Your task to perform on an android device: change the clock display to analog Image 0: 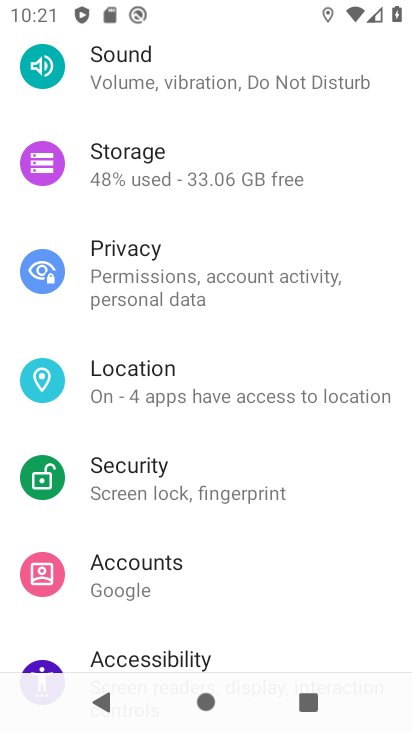
Step 0: press home button
Your task to perform on an android device: change the clock display to analog Image 1: 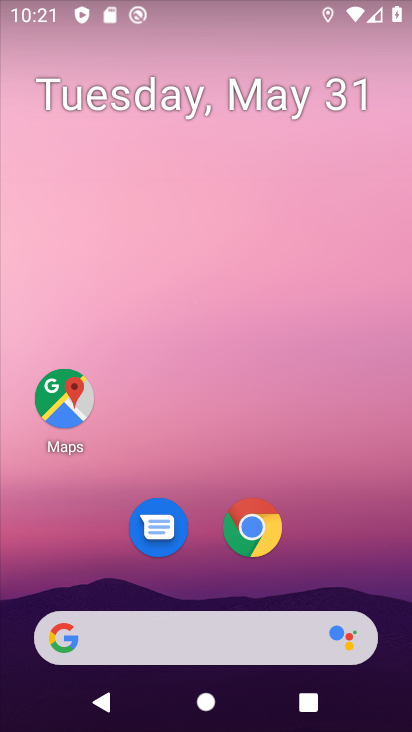
Step 1: drag from (397, 588) to (283, 49)
Your task to perform on an android device: change the clock display to analog Image 2: 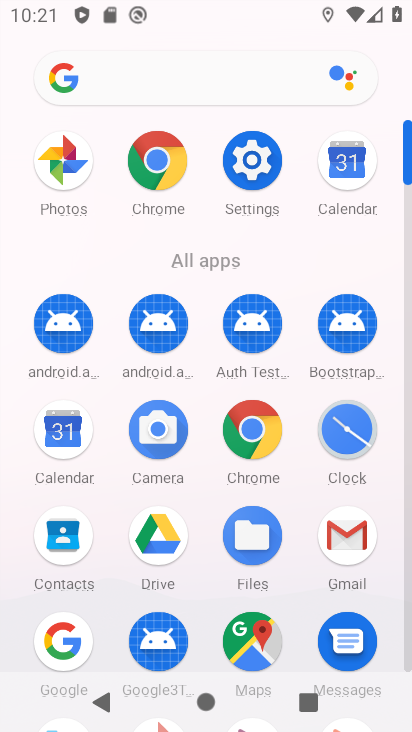
Step 2: click (353, 424)
Your task to perform on an android device: change the clock display to analog Image 3: 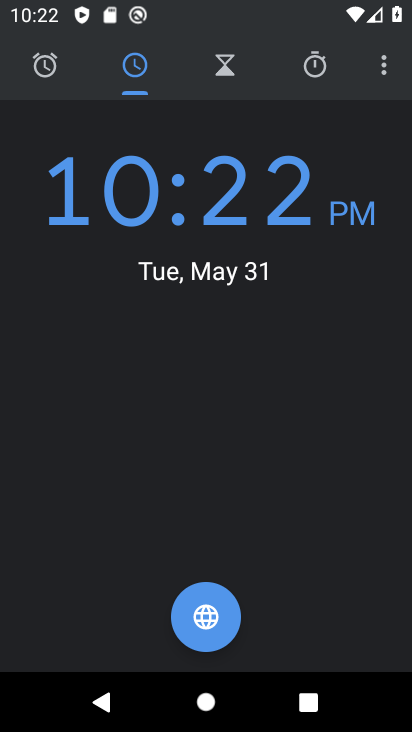
Step 3: click (384, 66)
Your task to perform on an android device: change the clock display to analog Image 4: 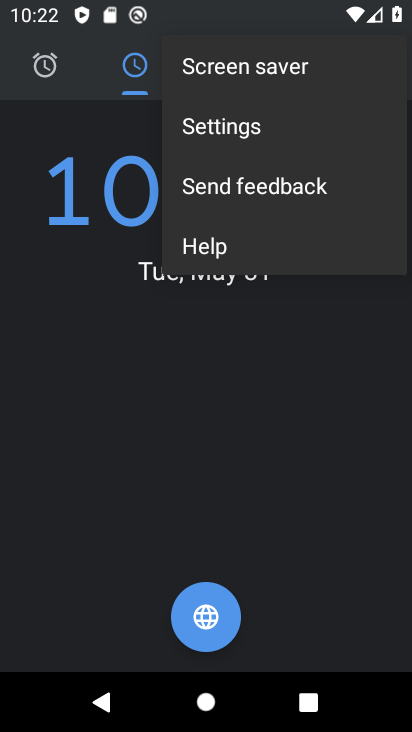
Step 4: click (318, 123)
Your task to perform on an android device: change the clock display to analog Image 5: 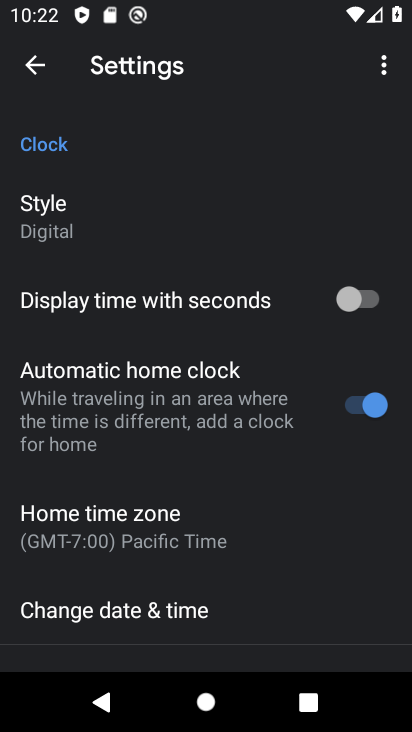
Step 5: click (168, 211)
Your task to perform on an android device: change the clock display to analog Image 6: 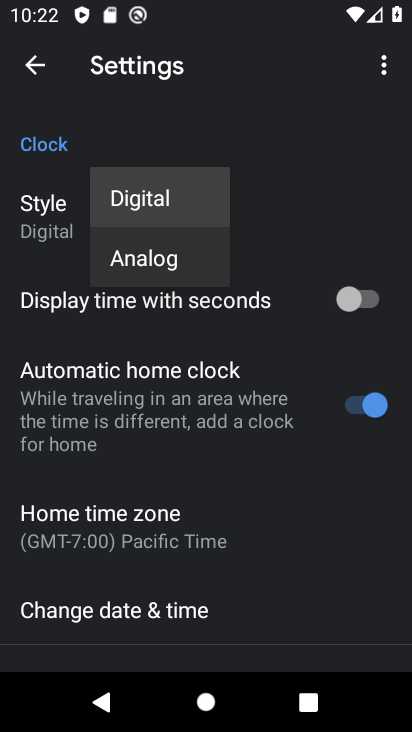
Step 6: click (181, 256)
Your task to perform on an android device: change the clock display to analog Image 7: 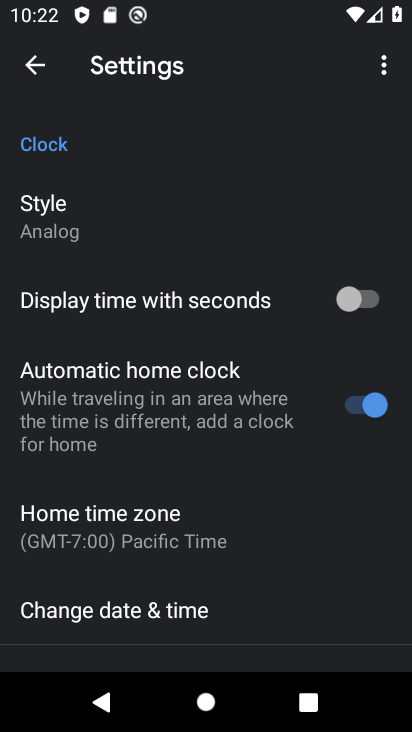
Step 7: task complete